Your task to perform on an android device: Open calendar and show me the fourth week of next month Image 0: 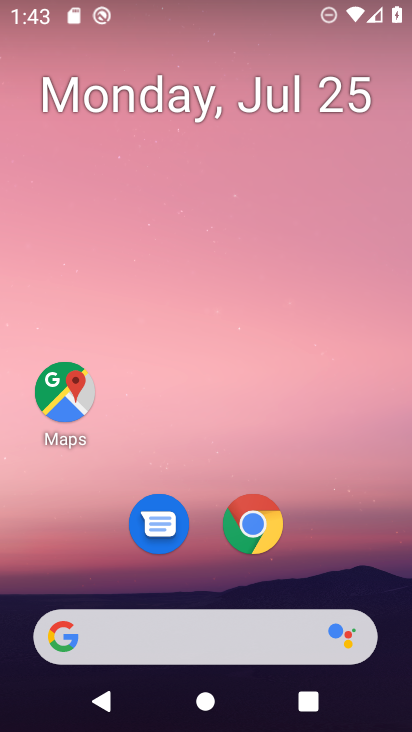
Step 0: drag from (148, 640) to (278, 12)
Your task to perform on an android device: Open calendar and show me the fourth week of next month Image 1: 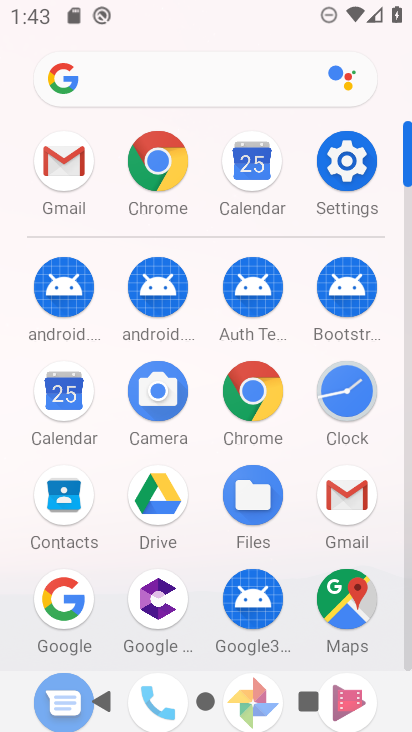
Step 1: click (52, 399)
Your task to perform on an android device: Open calendar and show me the fourth week of next month Image 2: 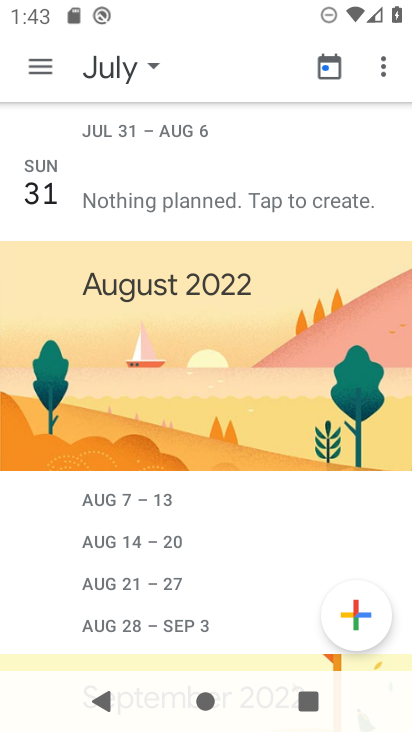
Step 2: click (111, 63)
Your task to perform on an android device: Open calendar and show me the fourth week of next month Image 3: 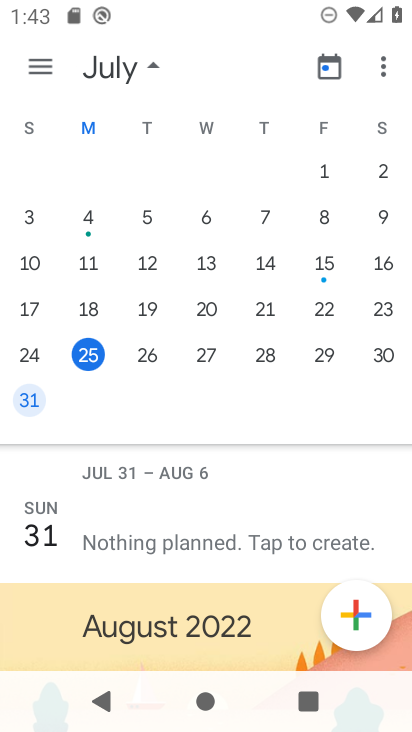
Step 3: drag from (325, 356) to (5, 270)
Your task to perform on an android device: Open calendar and show me the fourth week of next month Image 4: 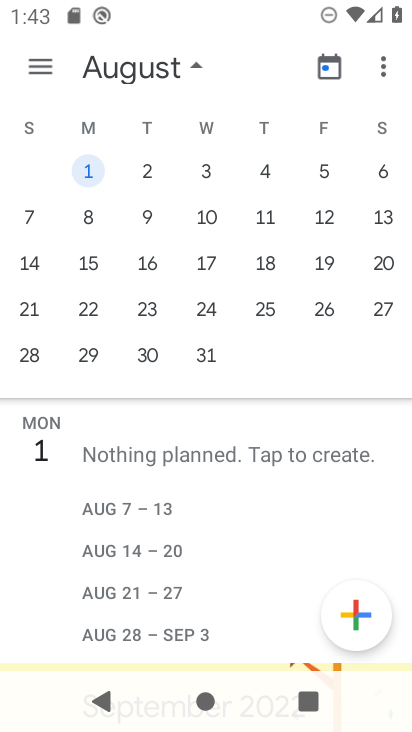
Step 4: click (30, 310)
Your task to perform on an android device: Open calendar and show me the fourth week of next month Image 5: 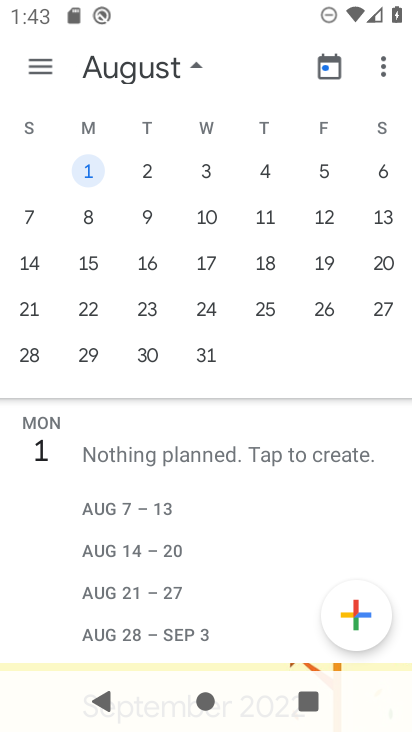
Step 5: click (35, 314)
Your task to perform on an android device: Open calendar and show me the fourth week of next month Image 6: 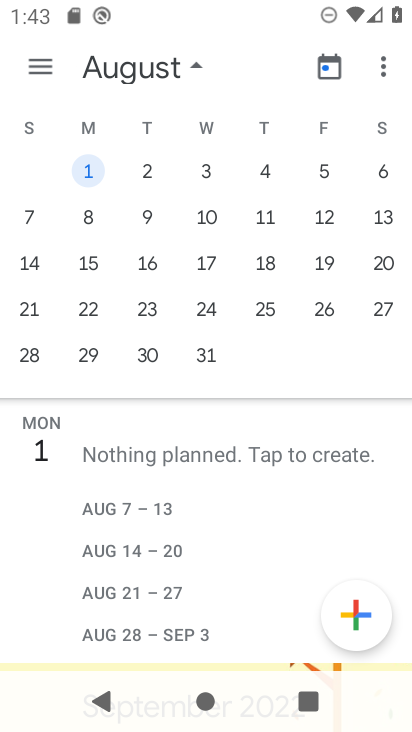
Step 6: click (29, 315)
Your task to perform on an android device: Open calendar and show me the fourth week of next month Image 7: 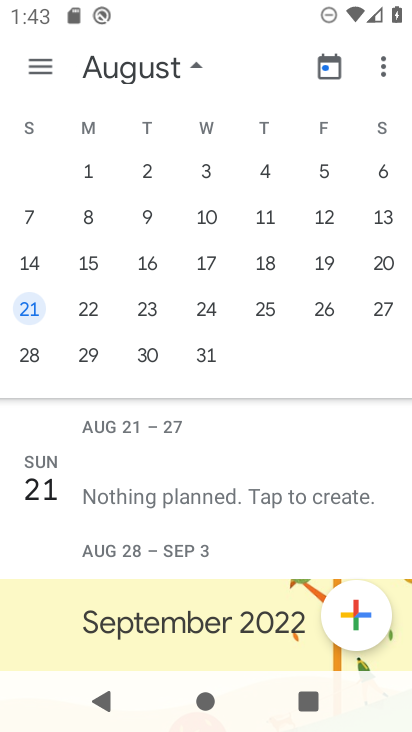
Step 7: click (37, 60)
Your task to perform on an android device: Open calendar and show me the fourth week of next month Image 8: 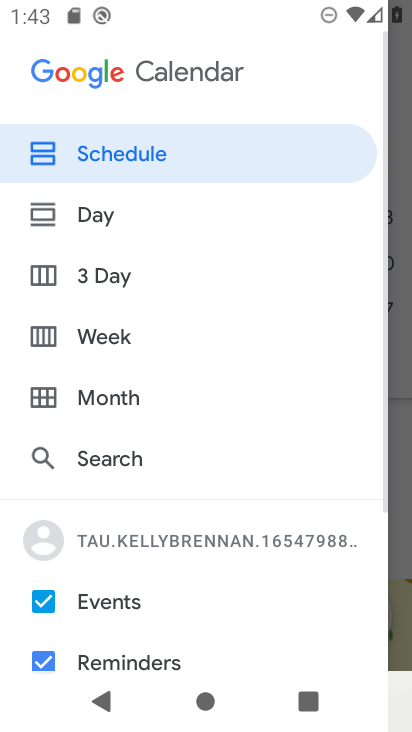
Step 8: click (107, 336)
Your task to perform on an android device: Open calendar and show me the fourth week of next month Image 9: 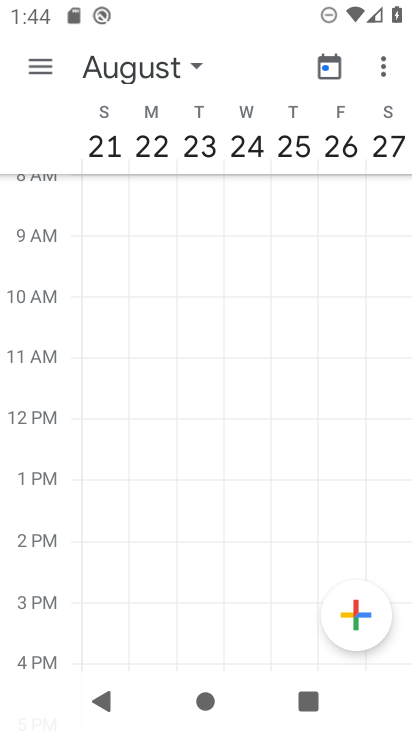
Step 9: task complete